Your task to perform on an android device: Is it going to rain today? Image 0: 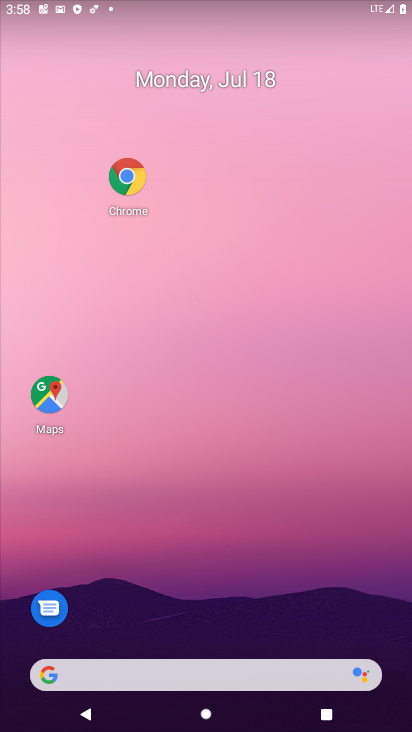
Step 0: drag from (199, 621) to (282, 144)
Your task to perform on an android device: Is it going to rain today? Image 1: 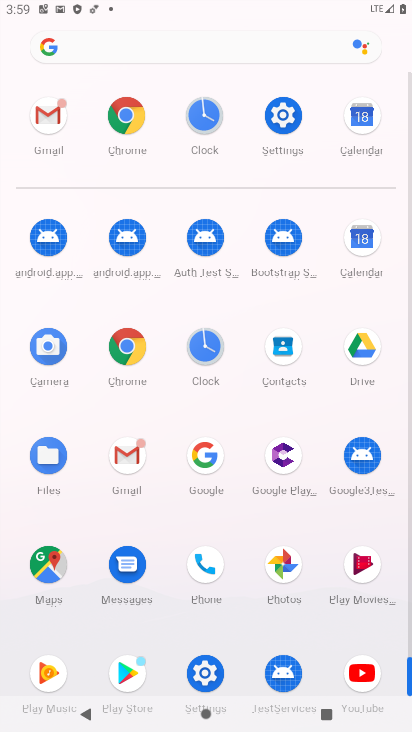
Step 1: click (202, 481)
Your task to perform on an android device: Is it going to rain today? Image 2: 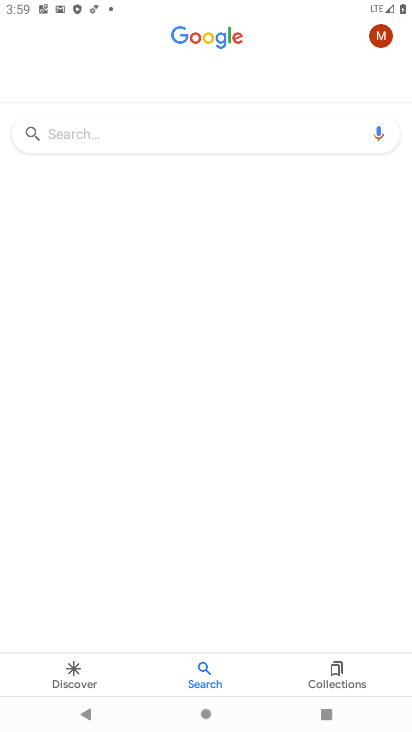
Step 2: click (171, 141)
Your task to perform on an android device: Is it going to rain today? Image 3: 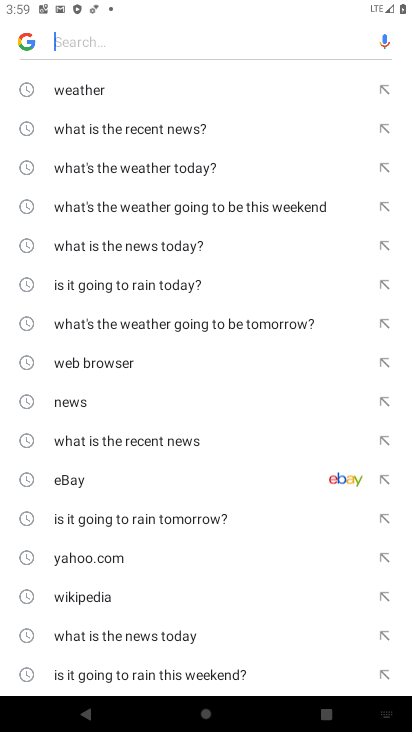
Step 3: click (73, 103)
Your task to perform on an android device: Is it going to rain today? Image 4: 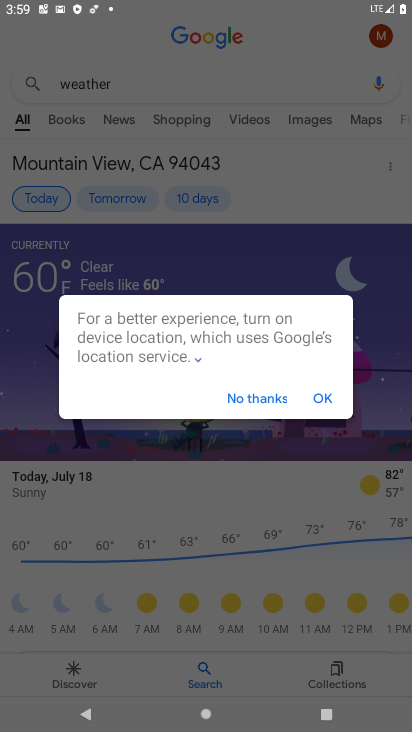
Step 4: click (328, 400)
Your task to perform on an android device: Is it going to rain today? Image 5: 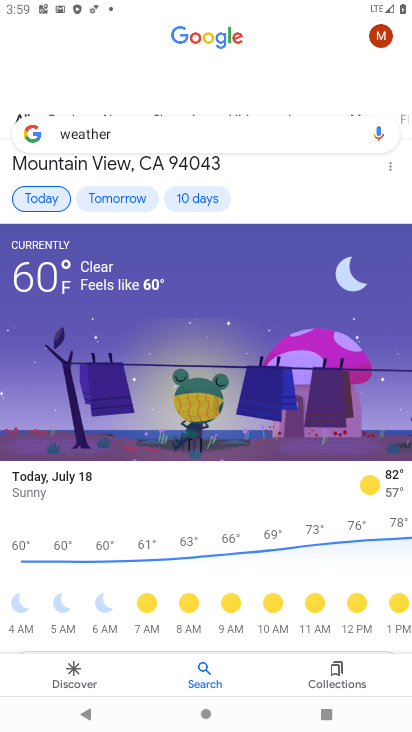
Step 5: task complete